Your task to perform on an android device: turn on javascript in the chrome app Image 0: 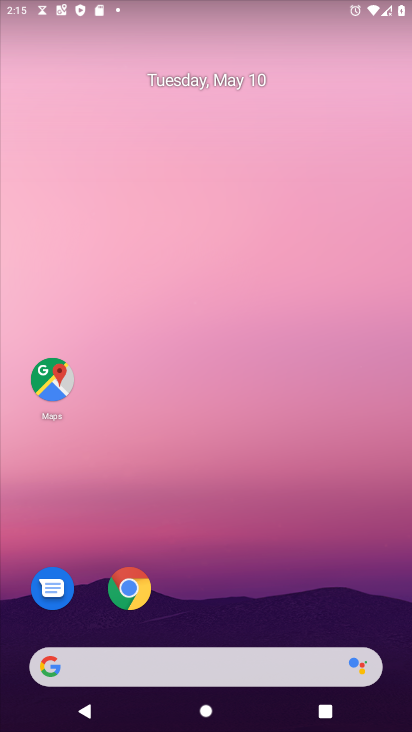
Step 0: drag from (229, 630) to (222, 225)
Your task to perform on an android device: turn on javascript in the chrome app Image 1: 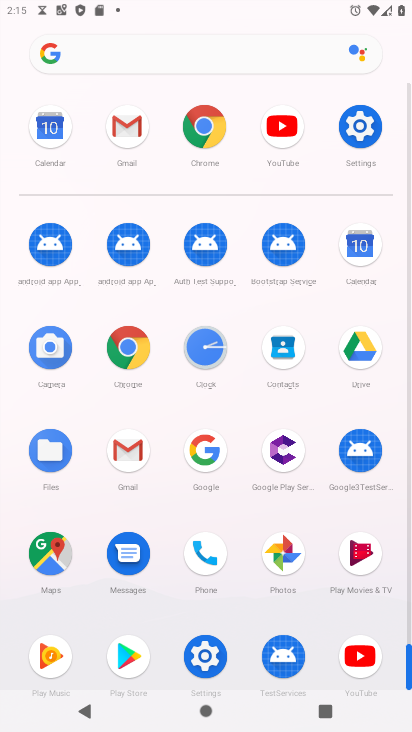
Step 1: click (128, 337)
Your task to perform on an android device: turn on javascript in the chrome app Image 2: 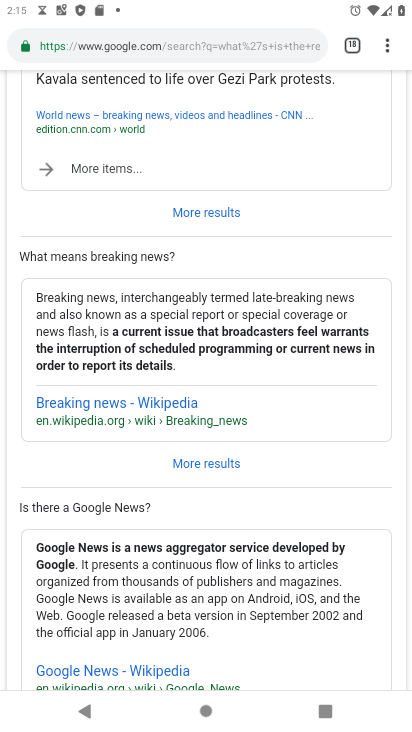
Step 2: click (380, 46)
Your task to perform on an android device: turn on javascript in the chrome app Image 3: 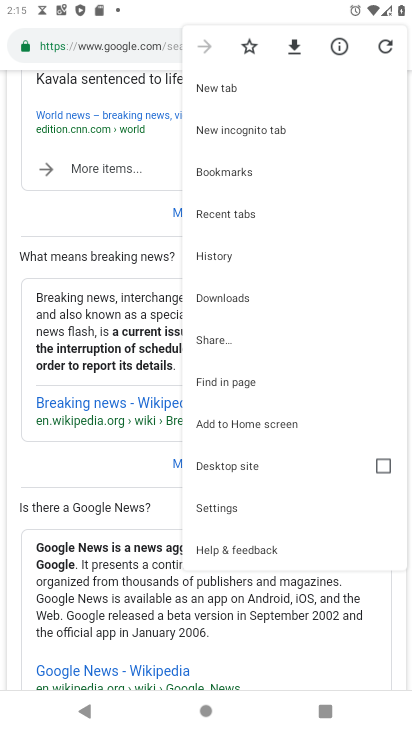
Step 3: click (230, 502)
Your task to perform on an android device: turn on javascript in the chrome app Image 4: 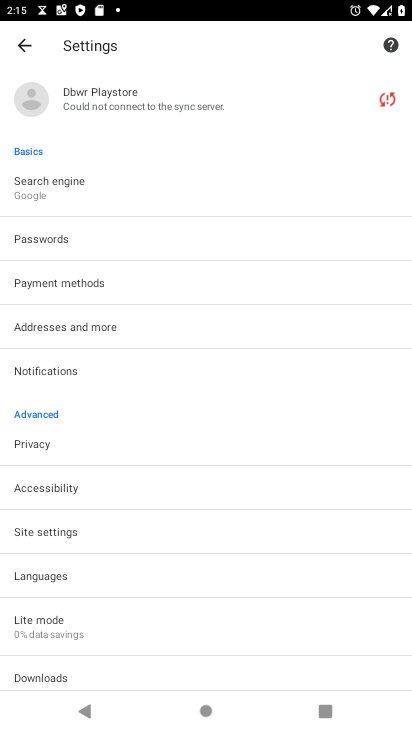
Step 4: click (95, 577)
Your task to perform on an android device: turn on javascript in the chrome app Image 5: 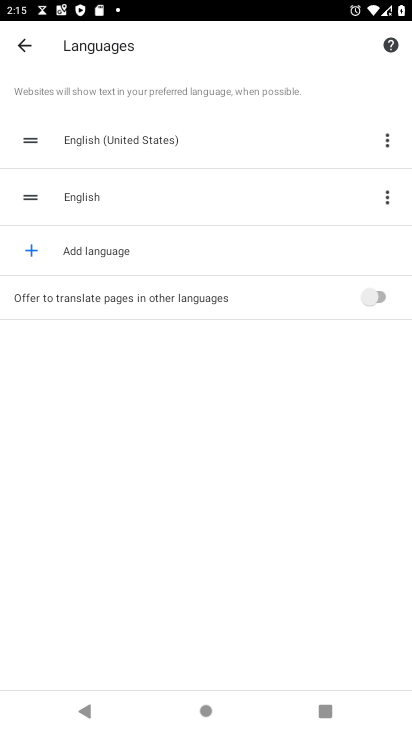
Step 5: click (29, 40)
Your task to perform on an android device: turn on javascript in the chrome app Image 6: 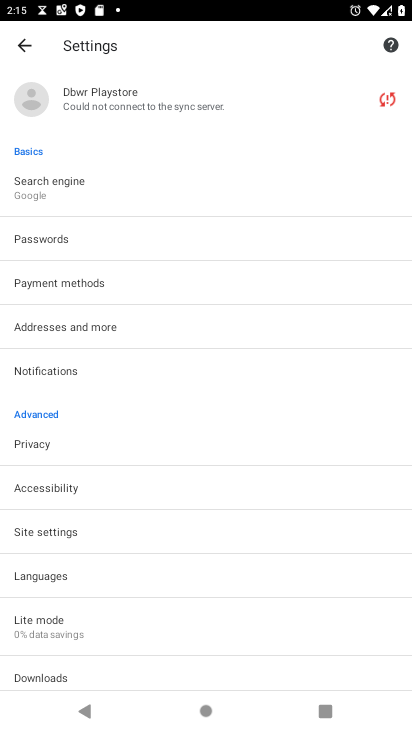
Step 6: click (103, 532)
Your task to perform on an android device: turn on javascript in the chrome app Image 7: 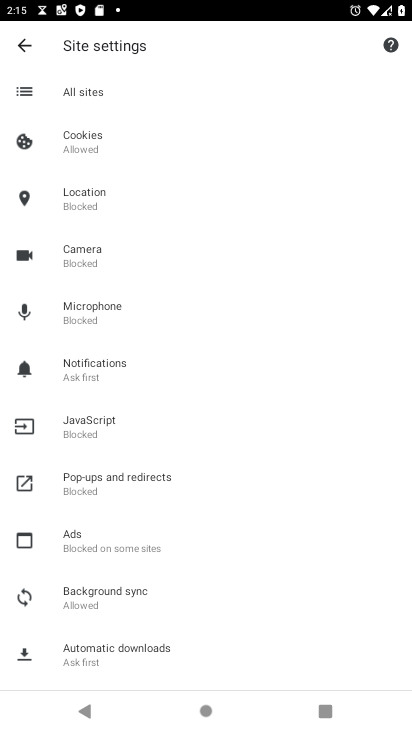
Step 7: click (126, 419)
Your task to perform on an android device: turn on javascript in the chrome app Image 8: 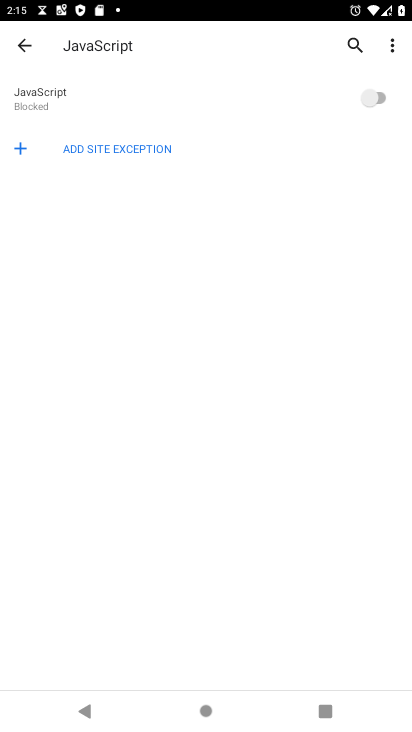
Step 8: click (373, 83)
Your task to perform on an android device: turn on javascript in the chrome app Image 9: 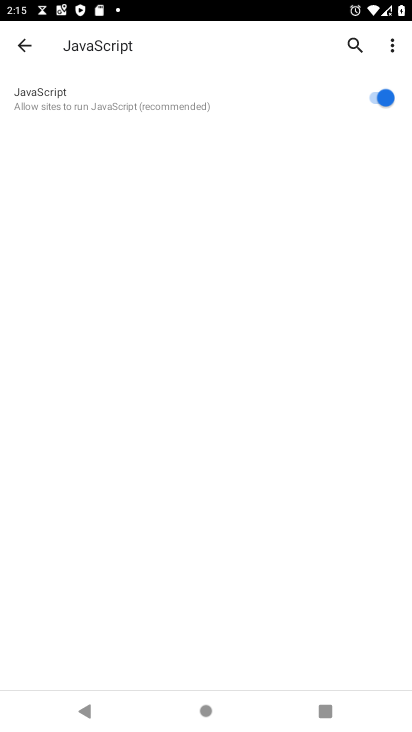
Step 9: task complete